Your task to perform on an android device: Show me the alarms in the clock app Image 0: 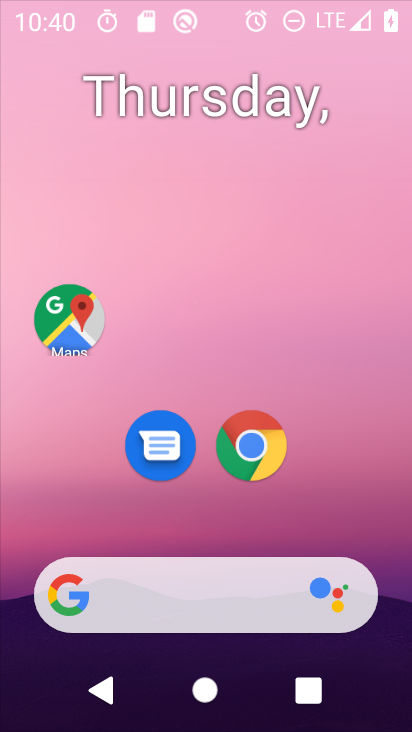
Step 0: click (333, 113)
Your task to perform on an android device: Show me the alarms in the clock app Image 1: 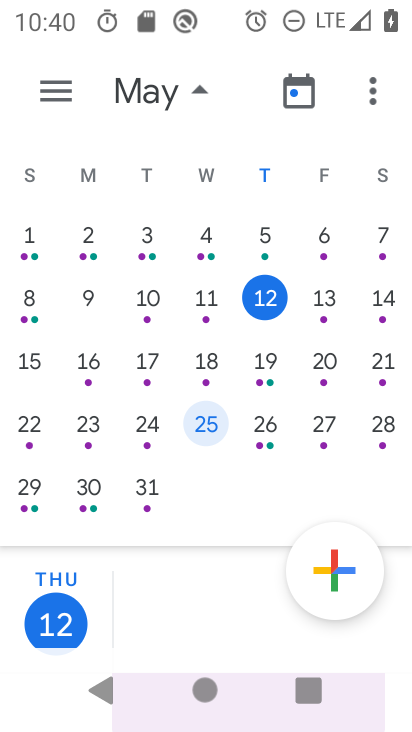
Step 1: press home button
Your task to perform on an android device: Show me the alarms in the clock app Image 2: 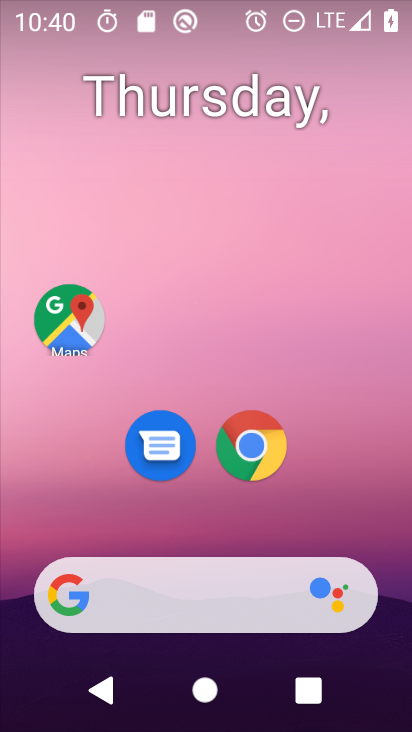
Step 2: drag from (210, 503) to (218, 133)
Your task to perform on an android device: Show me the alarms in the clock app Image 3: 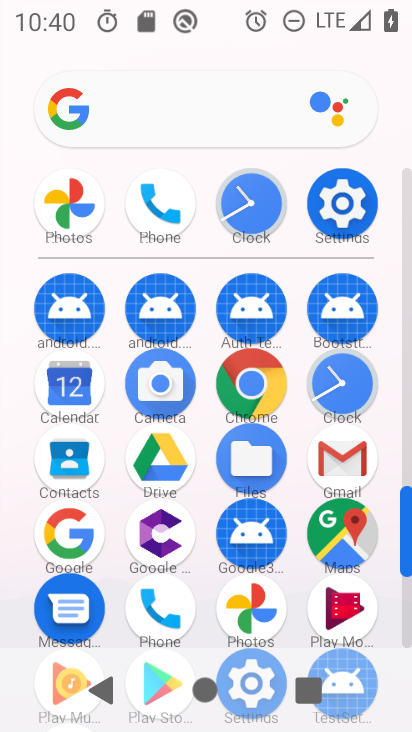
Step 3: click (336, 372)
Your task to perform on an android device: Show me the alarms in the clock app Image 4: 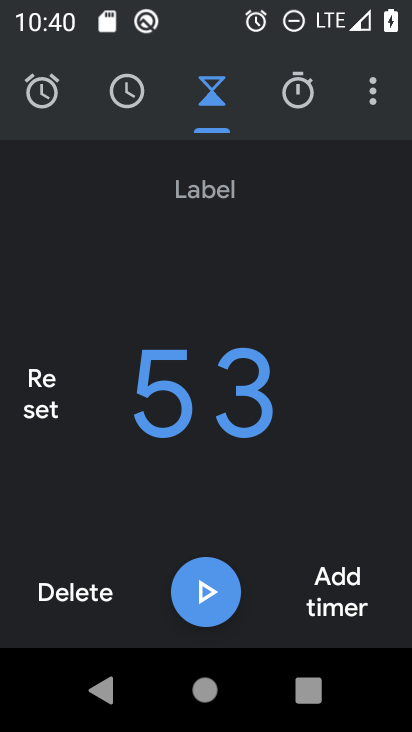
Step 4: click (305, 92)
Your task to perform on an android device: Show me the alarms in the clock app Image 5: 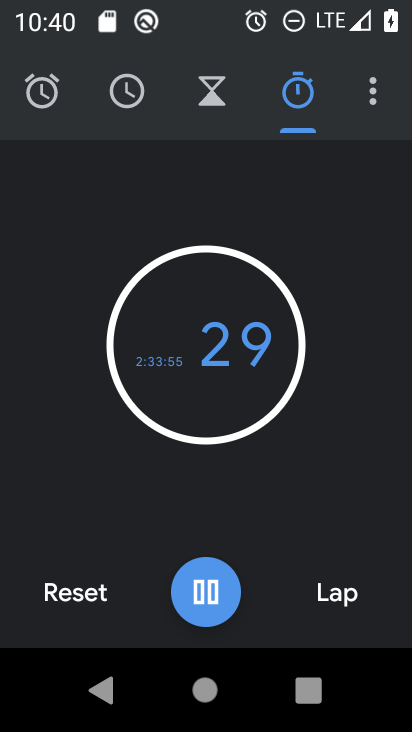
Step 5: click (368, 98)
Your task to perform on an android device: Show me the alarms in the clock app Image 6: 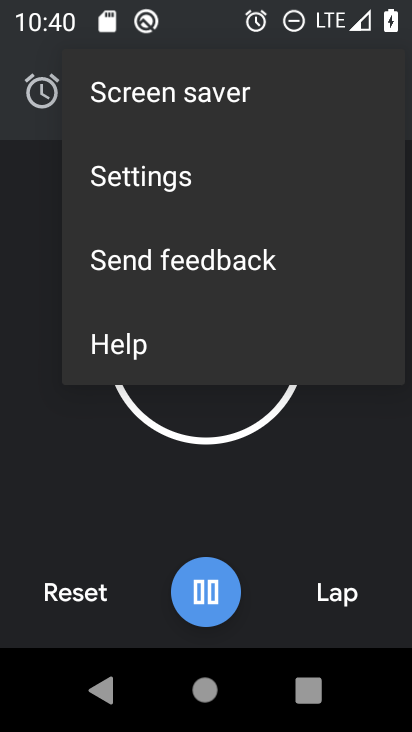
Step 6: click (288, 469)
Your task to perform on an android device: Show me the alarms in the clock app Image 7: 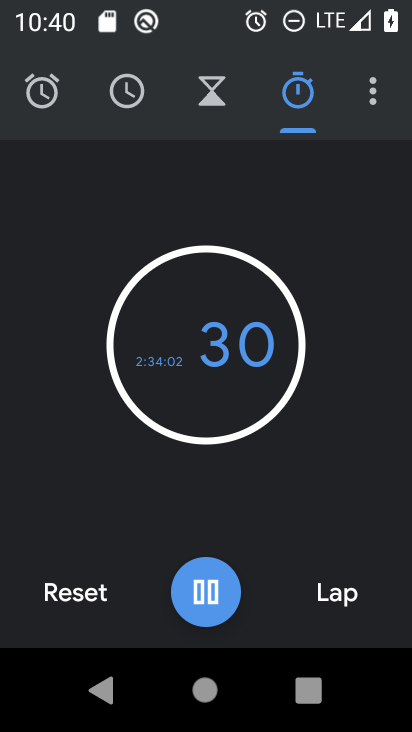
Step 7: click (37, 87)
Your task to perform on an android device: Show me the alarms in the clock app Image 8: 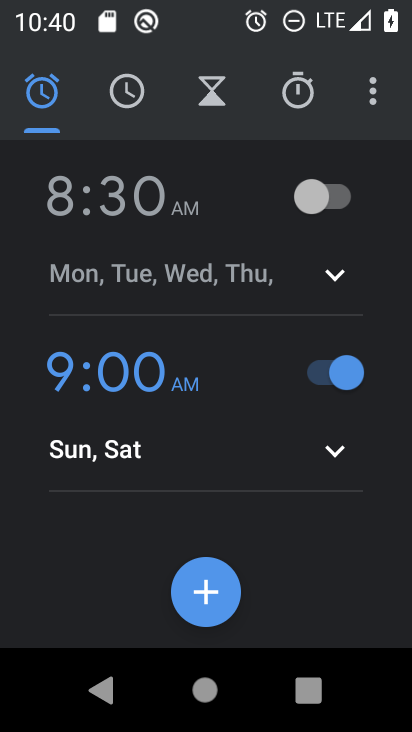
Step 8: click (330, 181)
Your task to perform on an android device: Show me the alarms in the clock app Image 9: 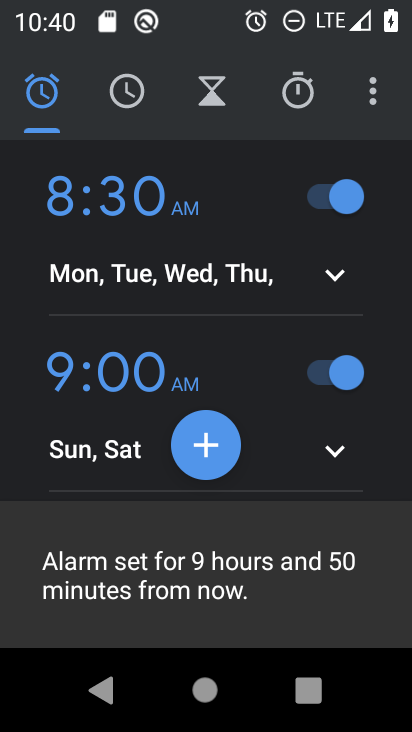
Step 9: task complete